Your task to perform on an android device: Open the Play Movies app and select the watchlist tab. Image 0: 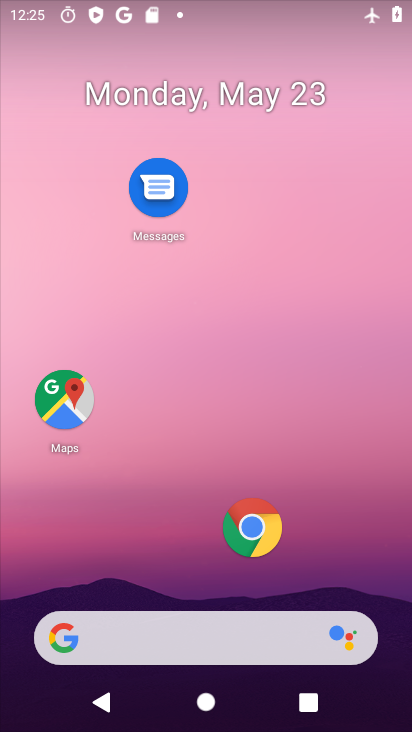
Step 0: drag from (222, 700) to (241, 183)
Your task to perform on an android device: Open the Play Movies app and select the watchlist tab. Image 1: 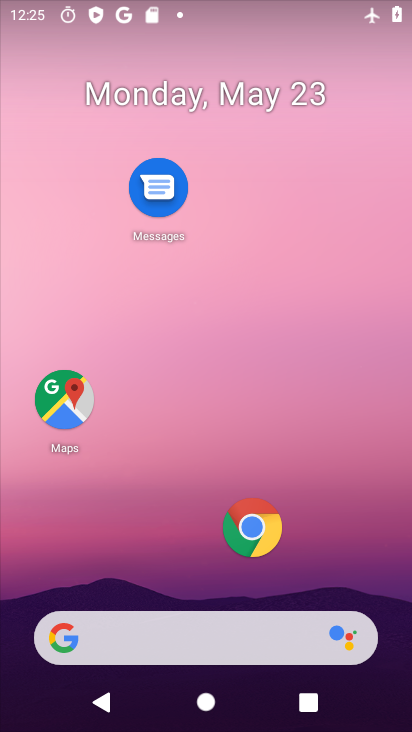
Step 1: drag from (263, 693) to (281, 131)
Your task to perform on an android device: Open the Play Movies app and select the watchlist tab. Image 2: 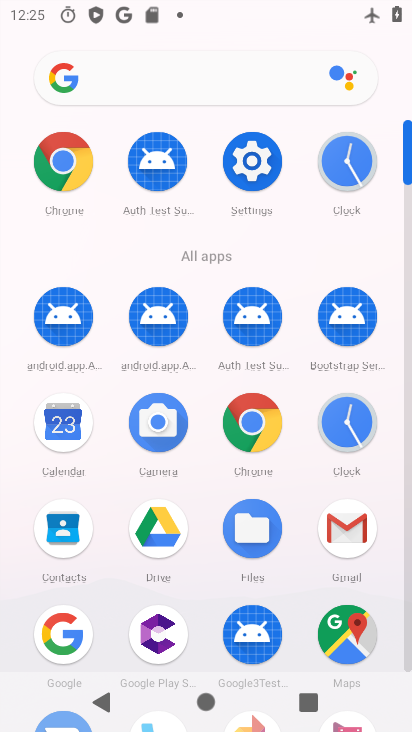
Step 2: drag from (269, 640) to (284, 156)
Your task to perform on an android device: Open the Play Movies app and select the watchlist tab. Image 3: 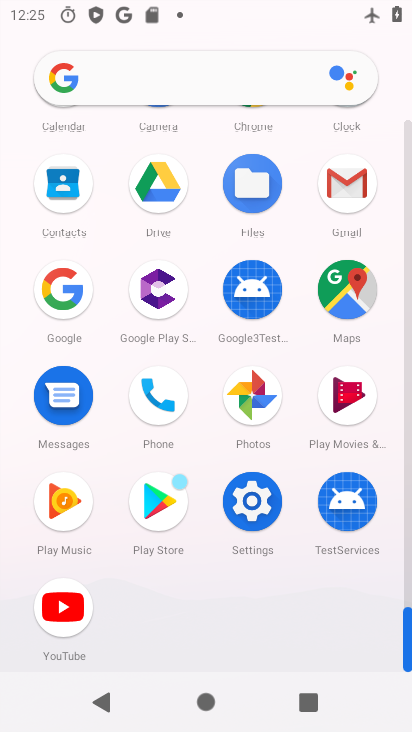
Step 3: drag from (295, 479) to (287, 94)
Your task to perform on an android device: Open the Play Movies app and select the watchlist tab. Image 4: 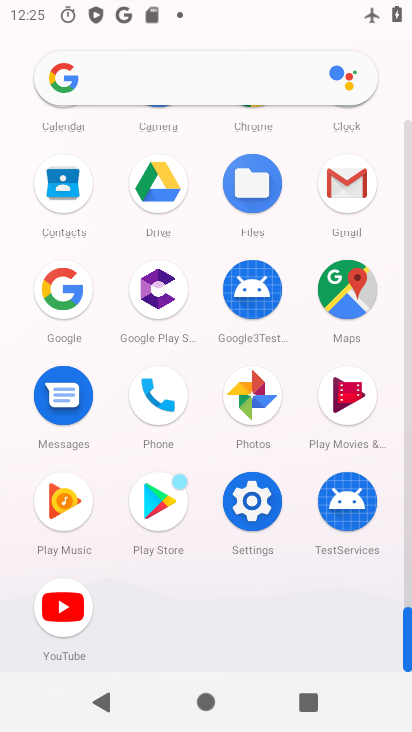
Step 4: click (343, 390)
Your task to perform on an android device: Open the Play Movies app and select the watchlist tab. Image 5: 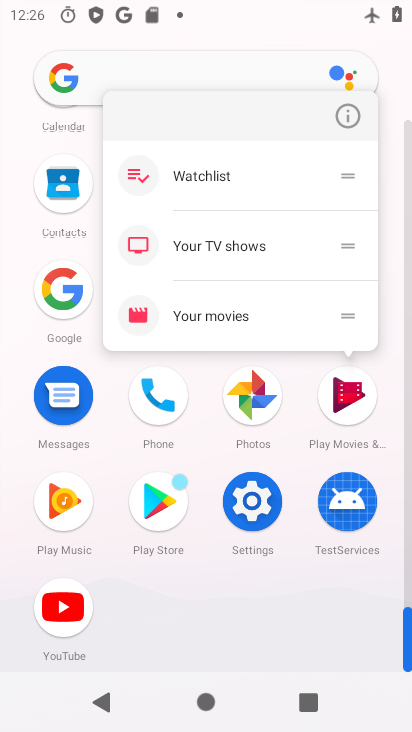
Step 5: click (203, 180)
Your task to perform on an android device: Open the Play Movies app and select the watchlist tab. Image 6: 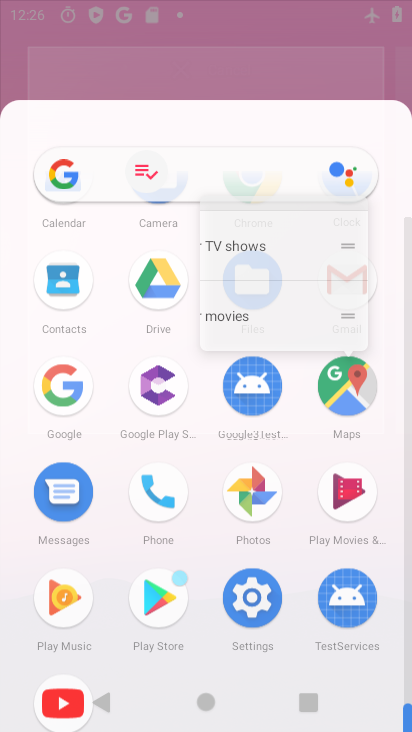
Step 6: click (203, 180)
Your task to perform on an android device: Open the Play Movies app and select the watchlist tab. Image 7: 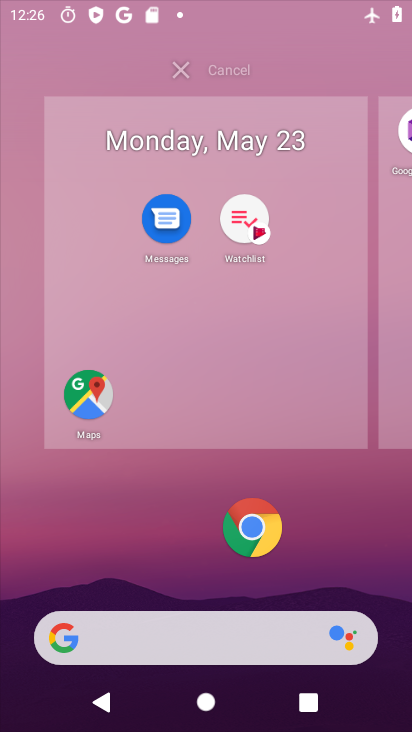
Step 7: click (203, 180)
Your task to perform on an android device: Open the Play Movies app and select the watchlist tab. Image 8: 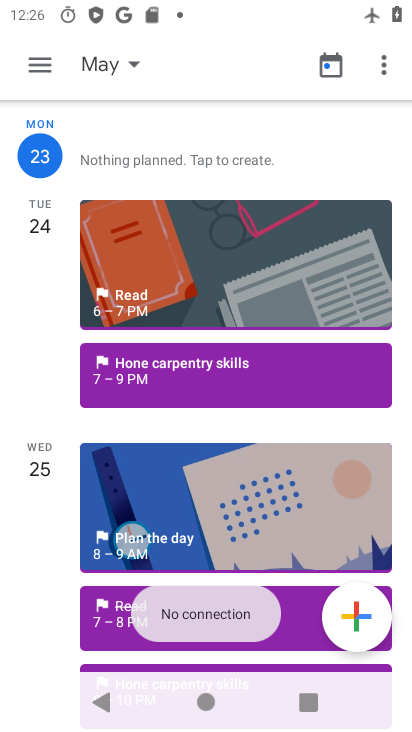
Step 8: task complete